Your task to perform on an android device: Open notification settings Image 0: 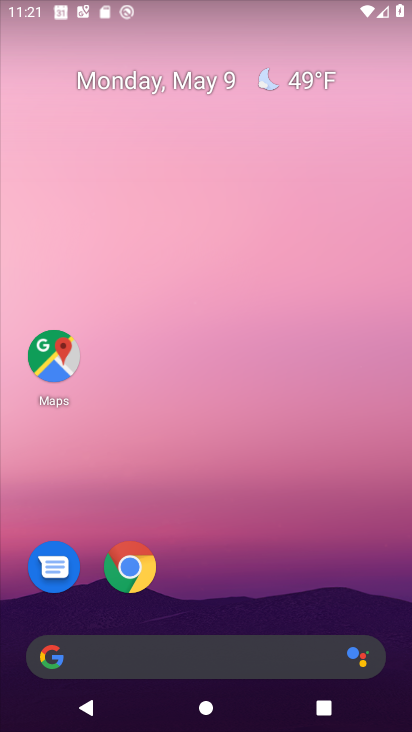
Step 0: drag from (244, 623) to (251, 244)
Your task to perform on an android device: Open notification settings Image 1: 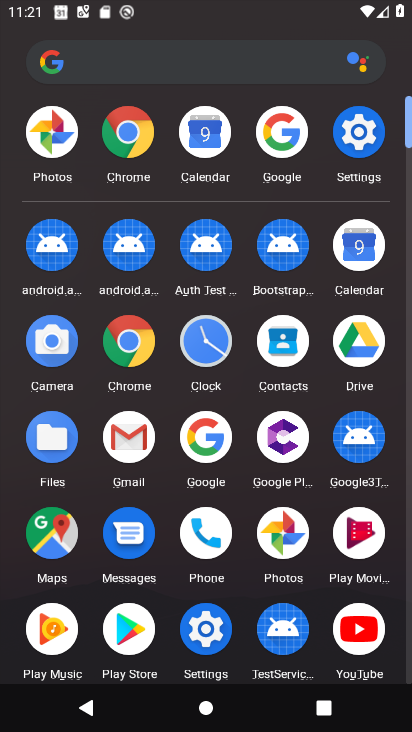
Step 1: click (349, 149)
Your task to perform on an android device: Open notification settings Image 2: 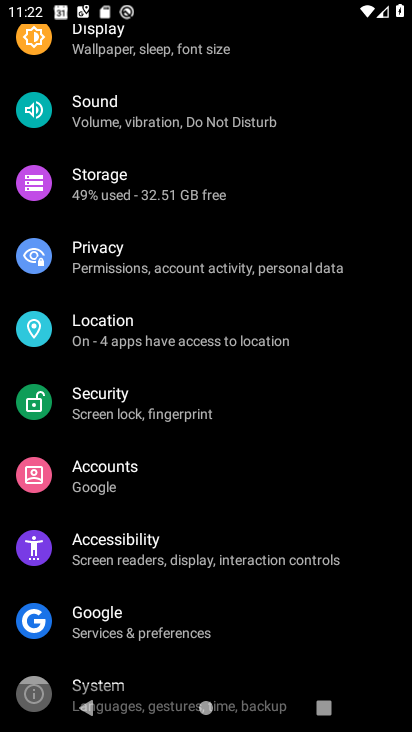
Step 2: drag from (120, 102) to (149, 481)
Your task to perform on an android device: Open notification settings Image 3: 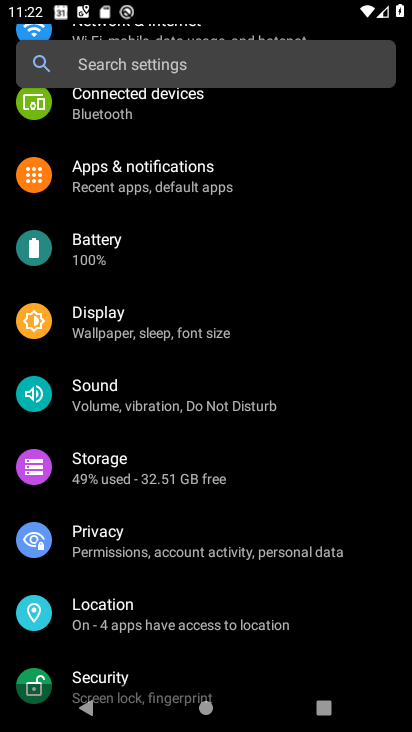
Step 3: drag from (121, 127) to (169, 516)
Your task to perform on an android device: Open notification settings Image 4: 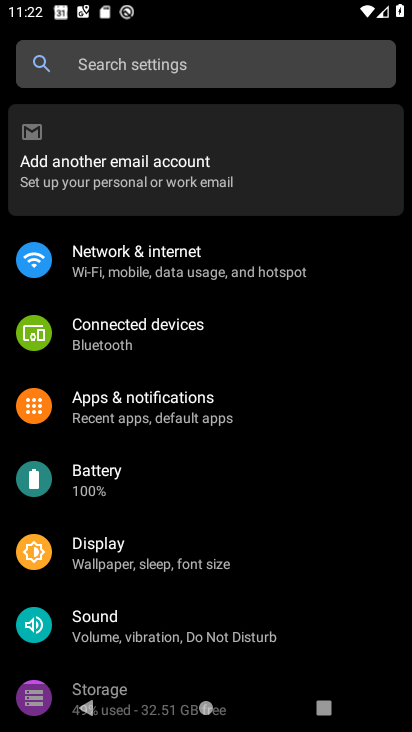
Step 4: click (112, 405)
Your task to perform on an android device: Open notification settings Image 5: 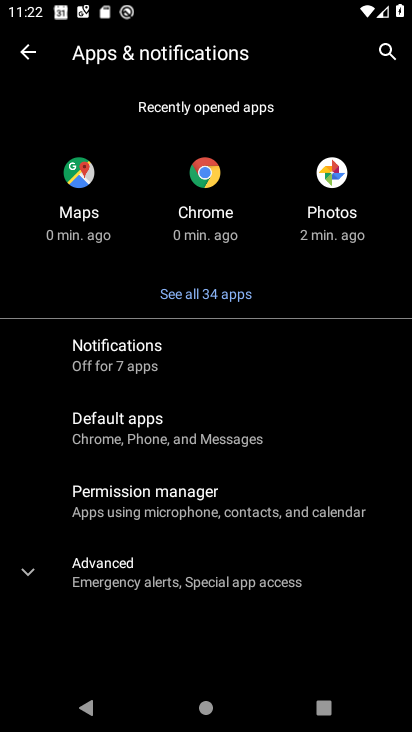
Step 5: click (126, 355)
Your task to perform on an android device: Open notification settings Image 6: 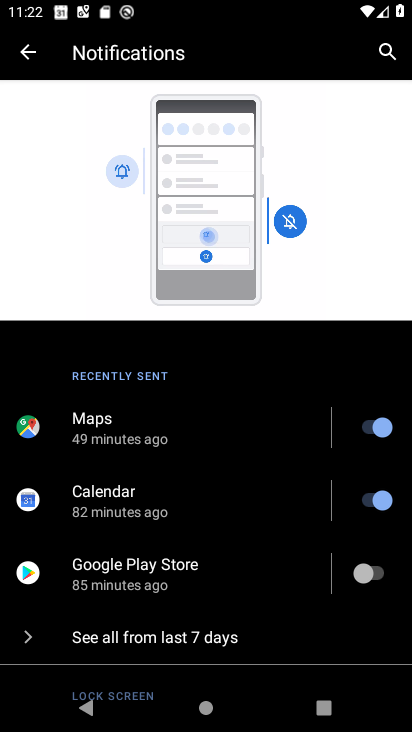
Step 6: task complete